Your task to perform on an android device: Go to location settings Image 0: 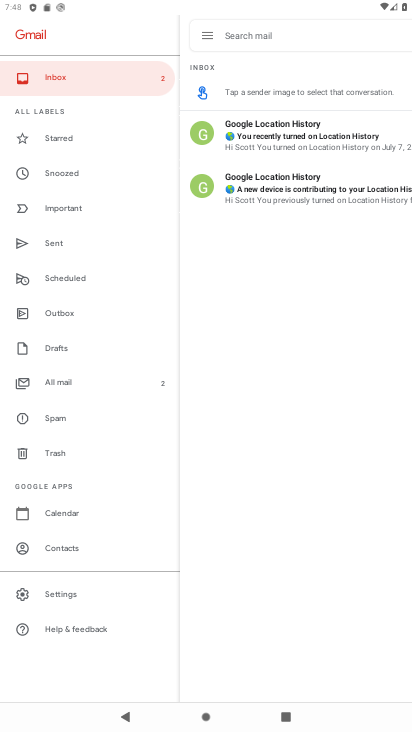
Step 0: press home button
Your task to perform on an android device: Go to location settings Image 1: 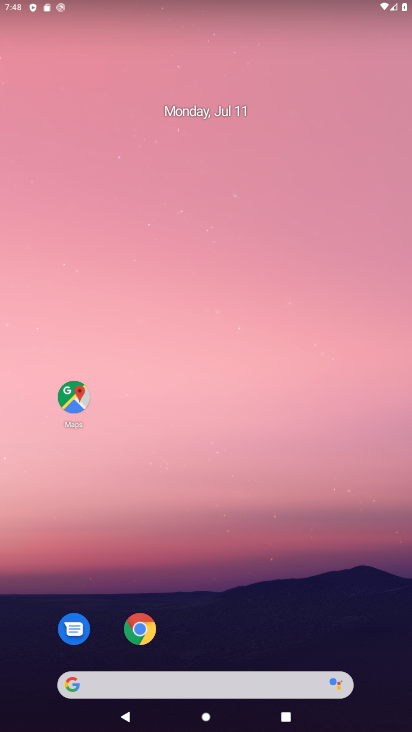
Step 1: drag from (200, 656) to (171, 158)
Your task to perform on an android device: Go to location settings Image 2: 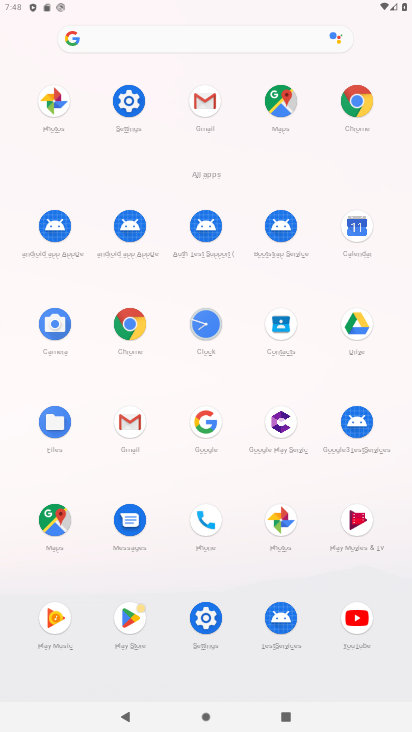
Step 2: click (208, 612)
Your task to perform on an android device: Go to location settings Image 3: 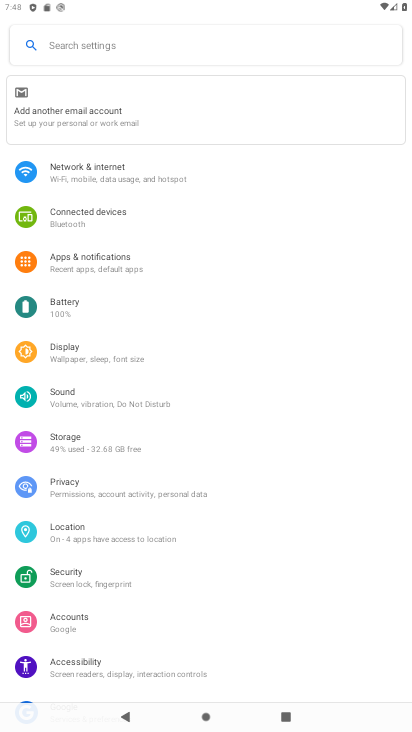
Step 3: click (91, 527)
Your task to perform on an android device: Go to location settings Image 4: 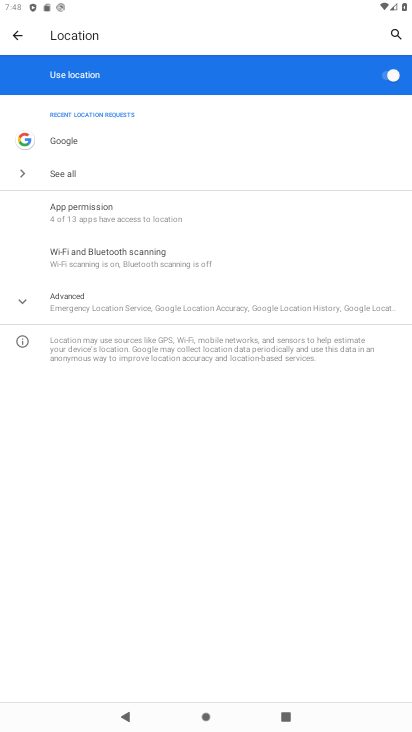
Step 4: click (85, 298)
Your task to perform on an android device: Go to location settings Image 5: 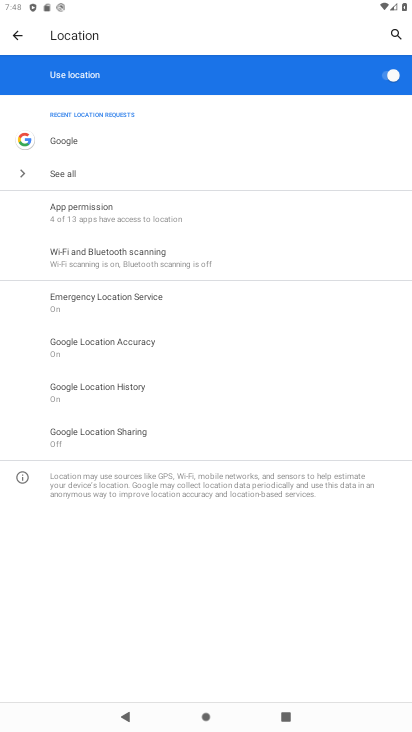
Step 5: task complete